Your task to perform on an android device: open chrome privacy settings Image 0: 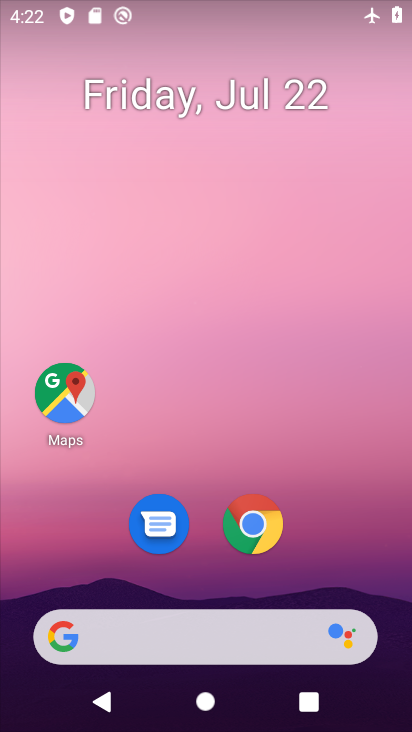
Step 0: drag from (342, 555) to (345, 504)
Your task to perform on an android device: open chrome privacy settings Image 1: 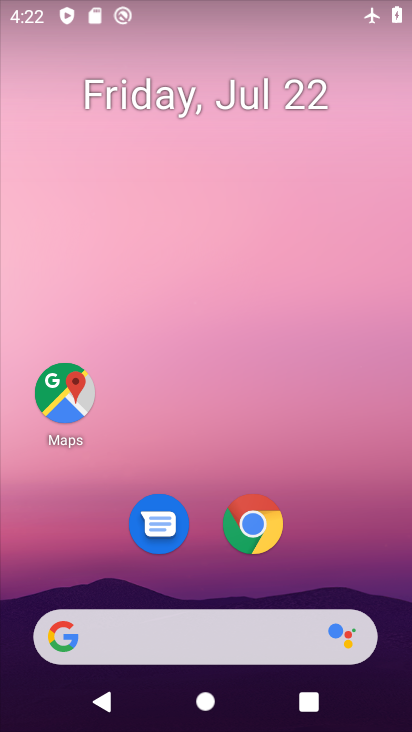
Step 1: click (264, 519)
Your task to perform on an android device: open chrome privacy settings Image 2: 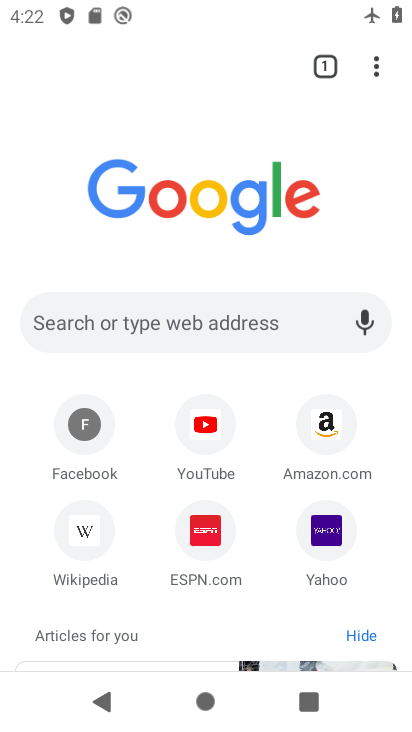
Step 2: click (376, 66)
Your task to perform on an android device: open chrome privacy settings Image 3: 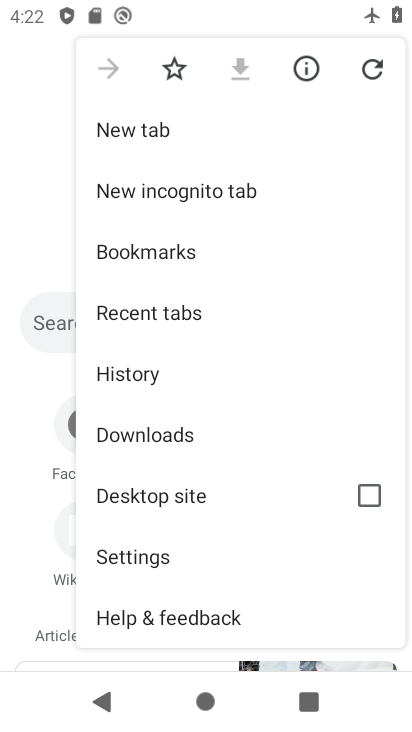
Step 3: click (146, 554)
Your task to perform on an android device: open chrome privacy settings Image 4: 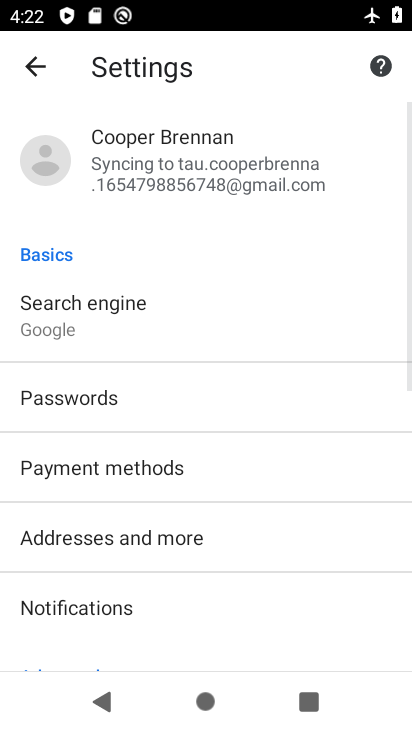
Step 4: drag from (168, 546) to (214, 432)
Your task to perform on an android device: open chrome privacy settings Image 5: 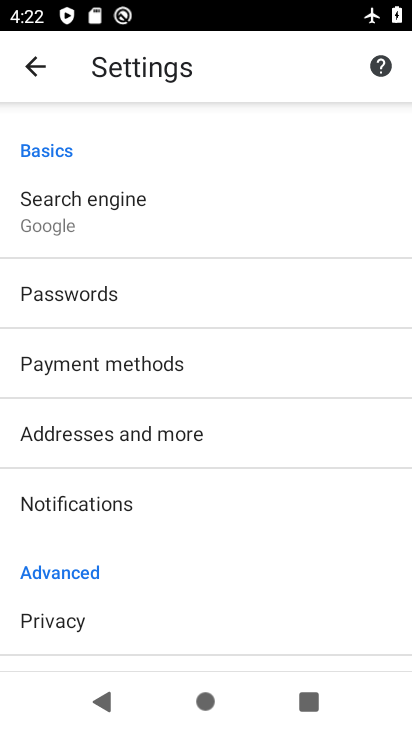
Step 5: click (73, 624)
Your task to perform on an android device: open chrome privacy settings Image 6: 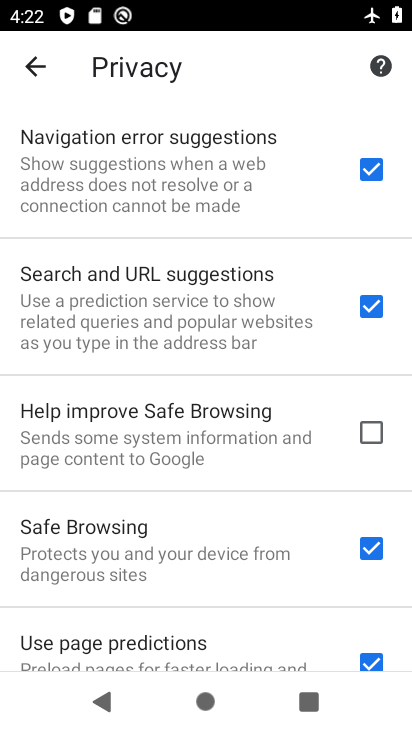
Step 6: task complete